Your task to perform on an android device: change the clock style Image 0: 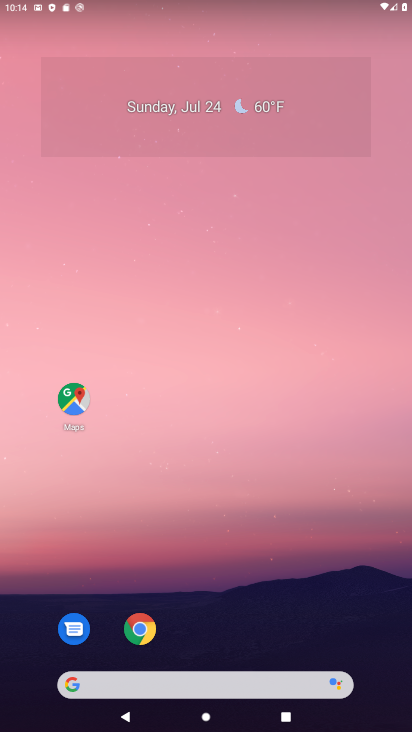
Step 0: click (174, 141)
Your task to perform on an android device: change the clock style Image 1: 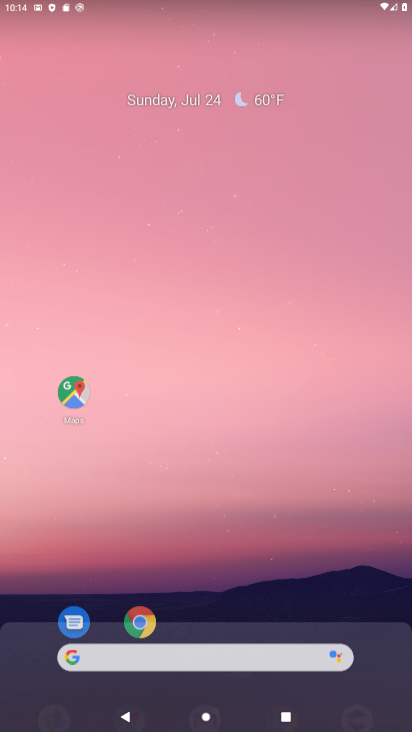
Step 1: drag from (95, 241) to (102, 162)
Your task to perform on an android device: change the clock style Image 2: 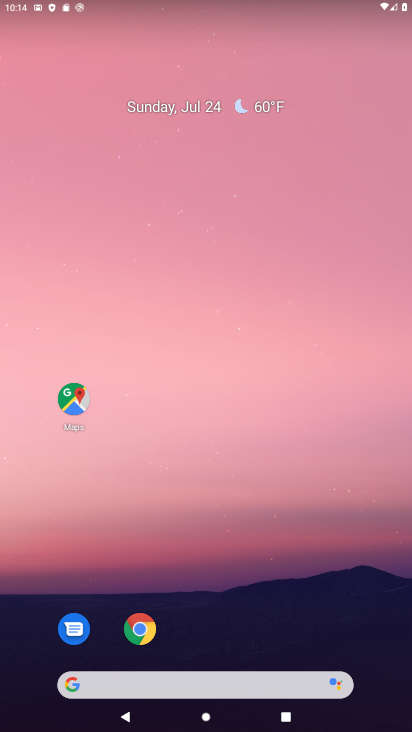
Step 2: drag from (231, 552) to (177, 215)
Your task to perform on an android device: change the clock style Image 3: 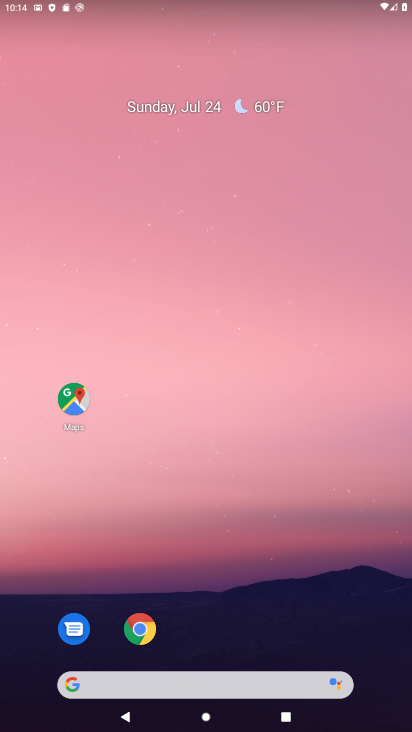
Step 3: drag from (254, 479) to (229, 37)
Your task to perform on an android device: change the clock style Image 4: 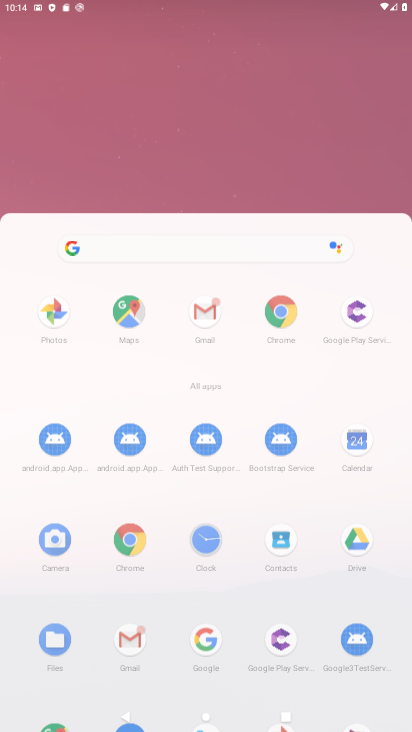
Step 4: drag from (181, 481) to (174, 95)
Your task to perform on an android device: change the clock style Image 5: 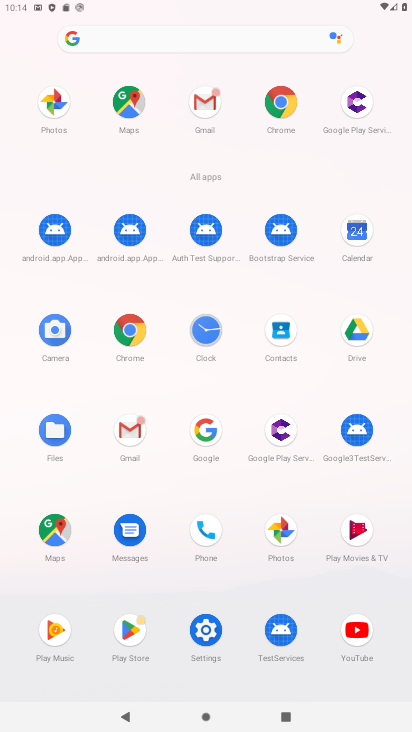
Step 5: drag from (206, 598) to (181, 122)
Your task to perform on an android device: change the clock style Image 6: 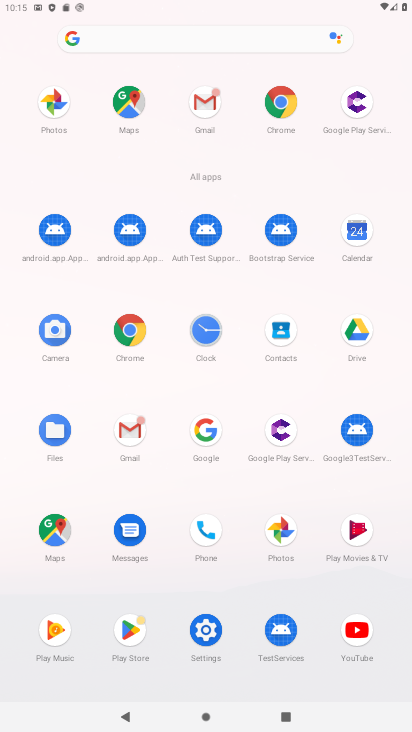
Step 6: click (200, 324)
Your task to perform on an android device: change the clock style Image 7: 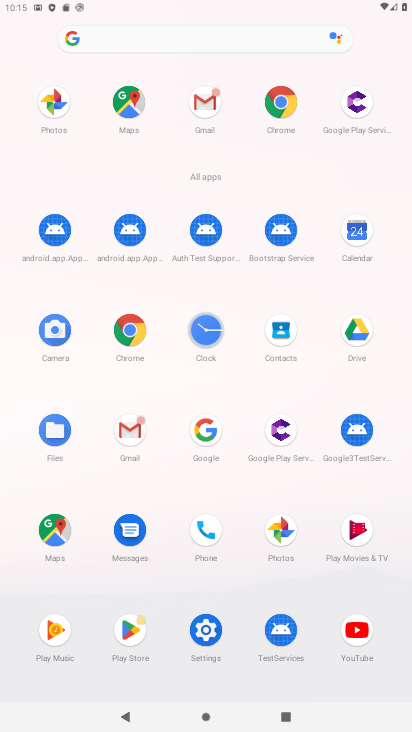
Step 7: click (203, 323)
Your task to perform on an android device: change the clock style Image 8: 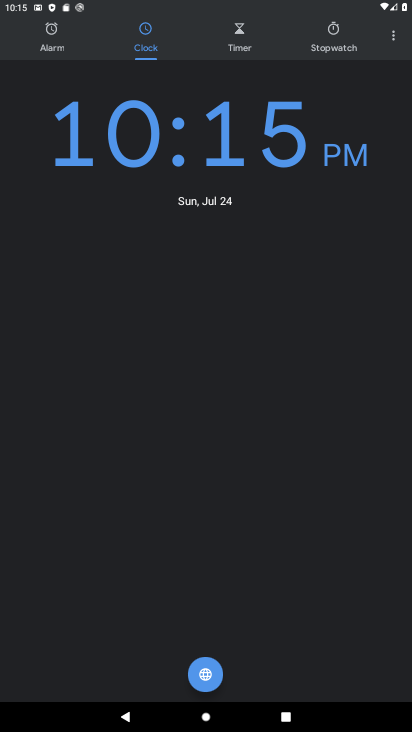
Step 8: click (387, 47)
Your task to perform on an android device: change the clock style Image 9: 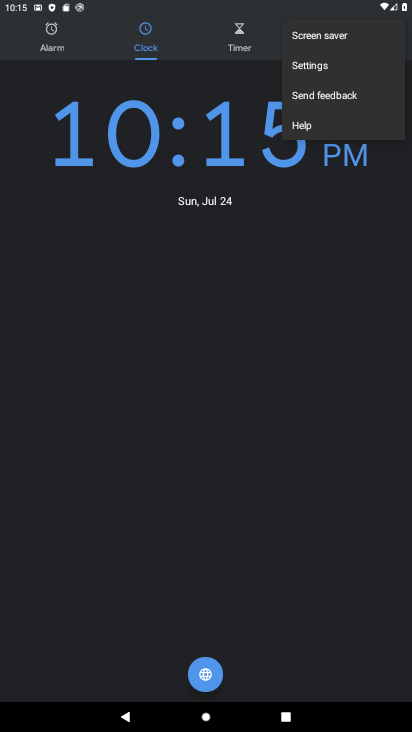
Step 9: click (309, 70)
Your task to perform on an android device: change the clock style Image 10: 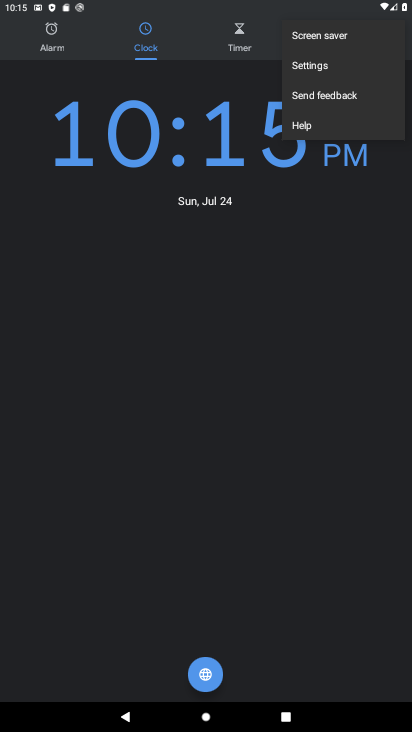
Step 10: click (319, 71)
Your task to perform on an android device: change the clock style Image 11: 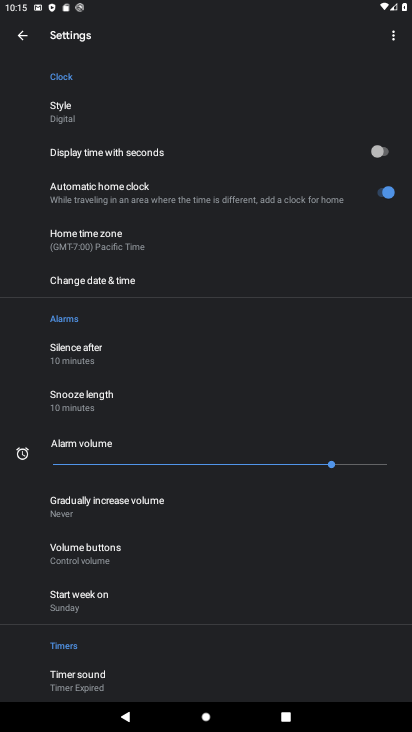
Step 11: click (78, 119)
Your task to perform on an android device: change the clock style Image 12: 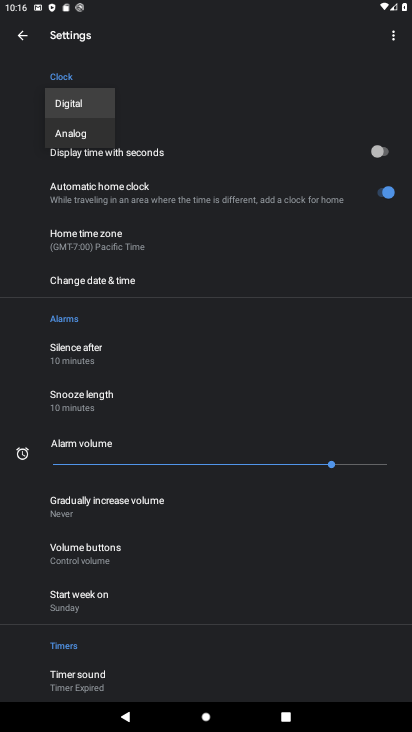
Step 12: click (77, 137)
Your task to perform on an android device: change the clock style Image 13: 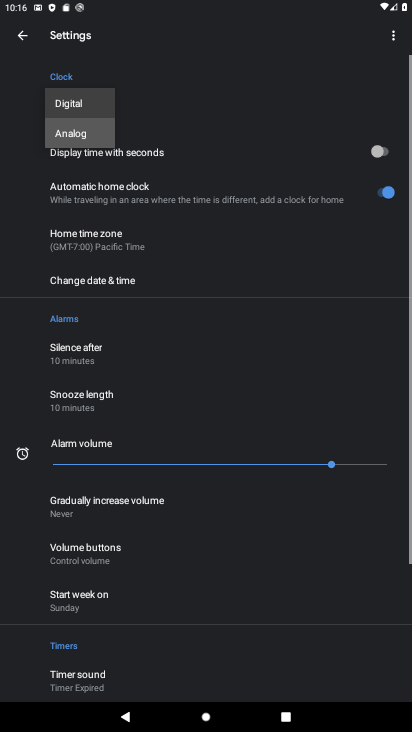
Step 13: click (76, 140)
Your task to perform on an android device: change the clock style Image 14: 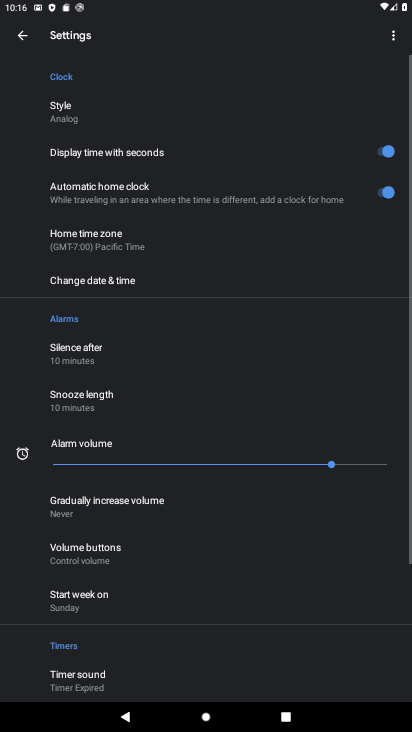
Step 14: click (71, 116)
Your task to perform on an android device: change the clock style Image 15: 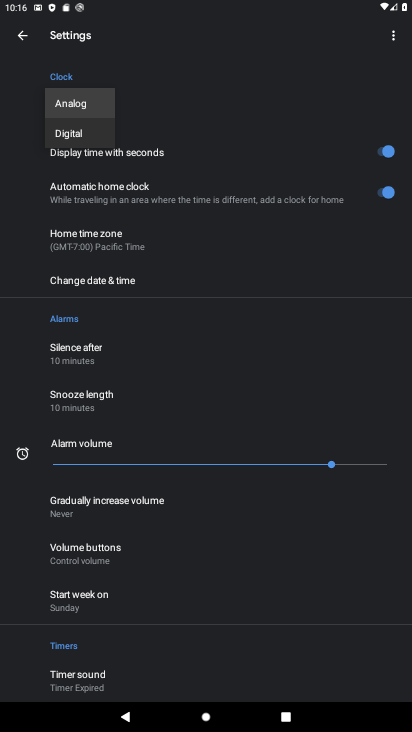
Step 15: click (78, 136)
Your task to perform on an android device: change the clock style Image 16: 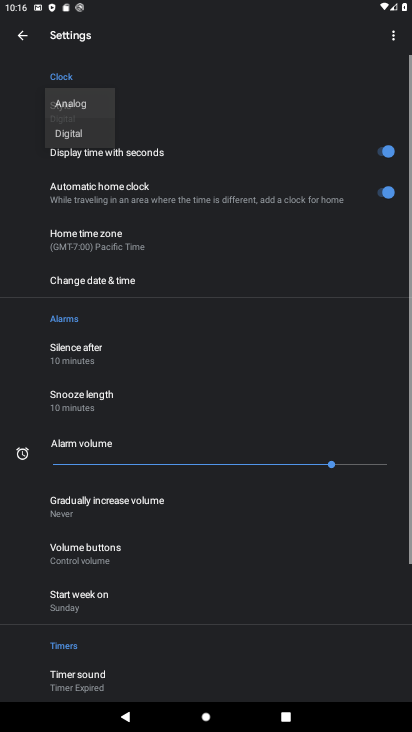
Step 16: task complete